Your task to perform on an android device: Open settings Image 0: 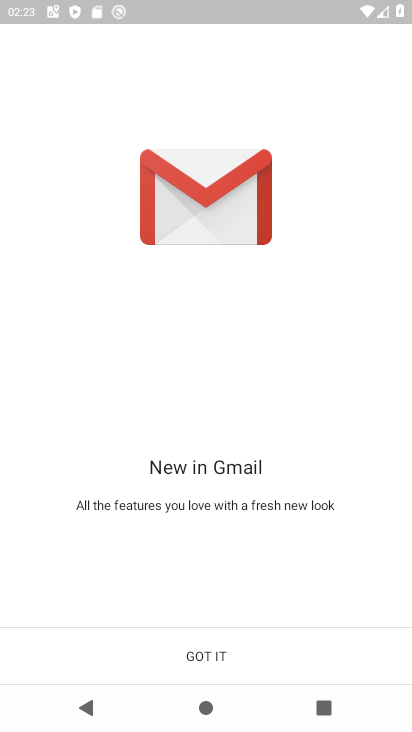
Step 0: press back button
Your task to perform on an android device: Open settings Image 1: 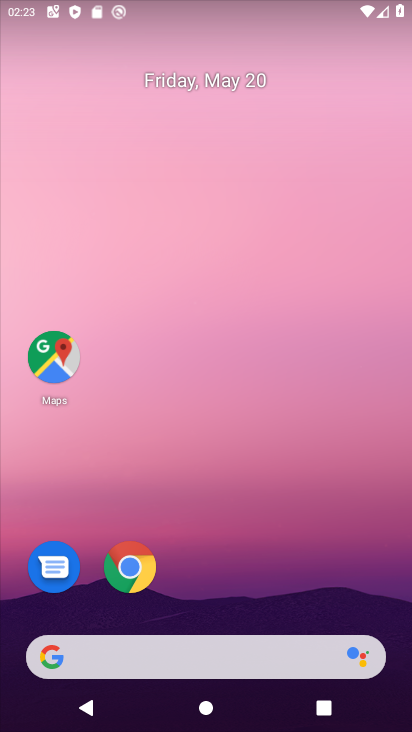
Step 1: drag from (265, 565) to (264, 12)
Your task to perform on an android device: Open settings Image 2: 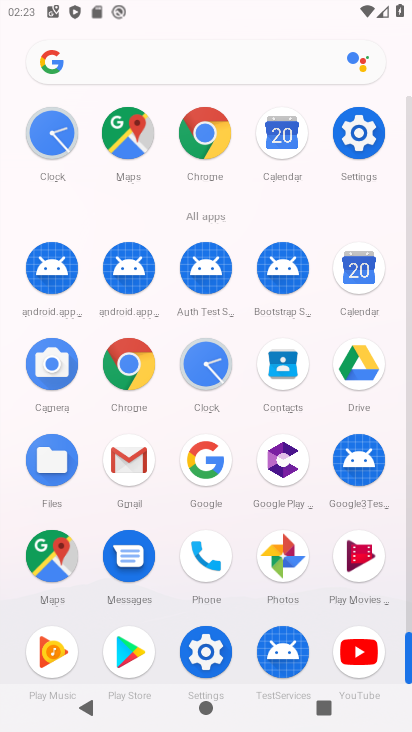
Step 2: drag from (10, 574) to (25, 294)
Your task to perform on an android device: Open settings Image 3: 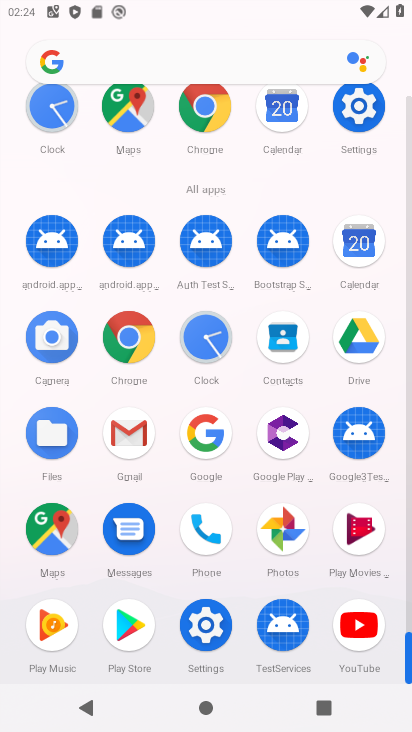
Step 3: click (204, 623)
Your task to perform on an android device: Open settings Image 4: 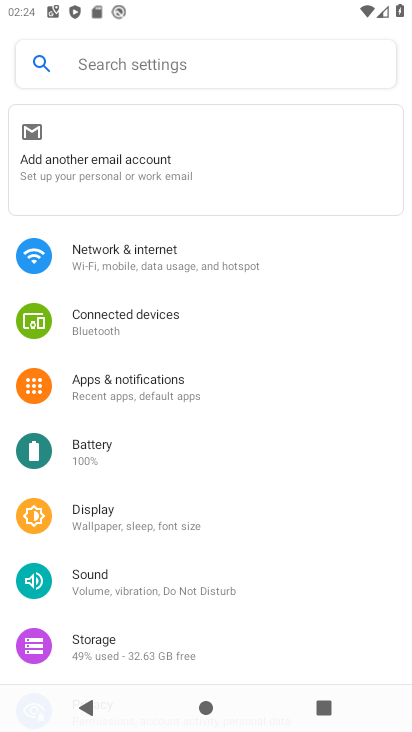
Step 4: task complete